Your task to perform on an android device: Is it going to rain this weekend? Image 0: 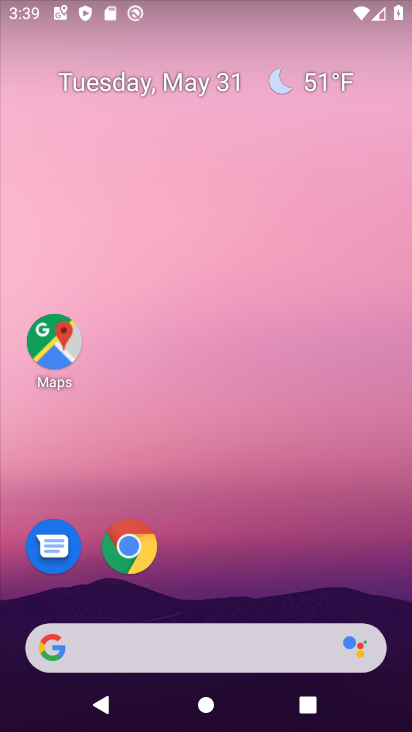
Step 0: drag from (212, 577) to (265, 222)
Your task to perform on an android device: Is it going to rain this weekend? Image 1: 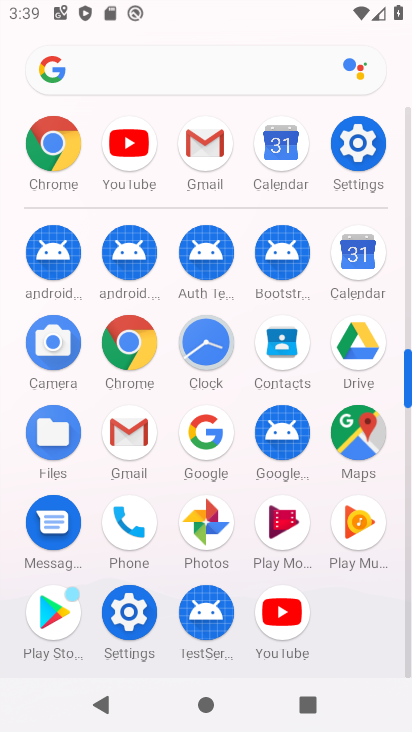
Step 1: click (197, 438)
Your task to perform on an android device: Is it going to rain this weekend? Image 2: 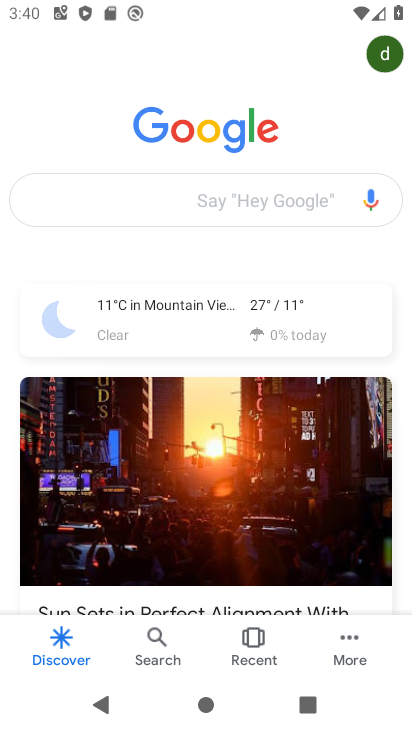
Step 2: click (193, 199)
Your task to perform on an android device: Is it going to rain this weekend? Image 3: 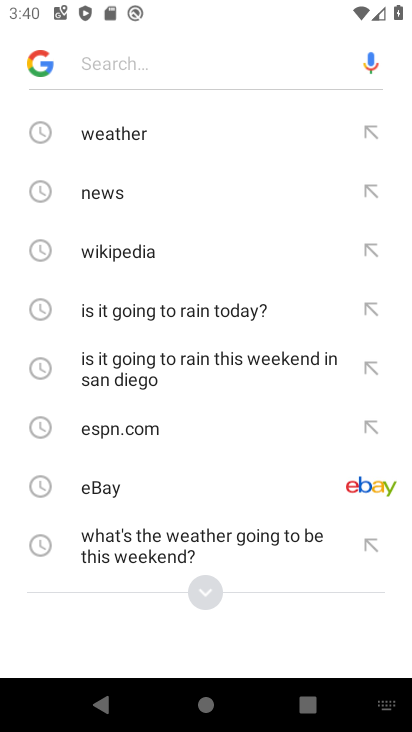
Step 3: click (118, 135)
Your task to perform on an android device: Is it going to rain this weekend? Image 4: 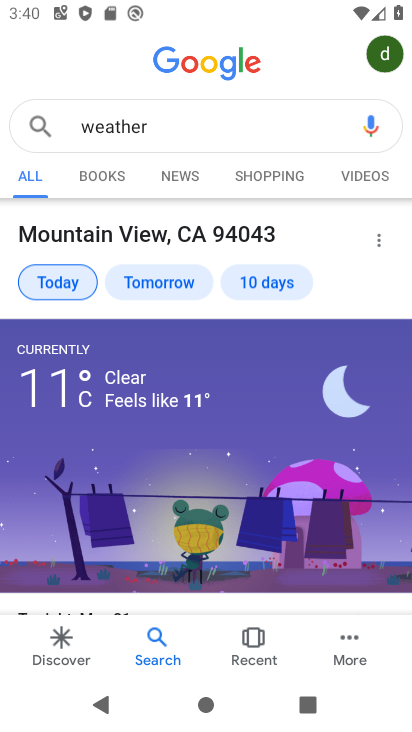
Step 4: click (258, 297)
Your task to perform on an android device: Is it going to rain this weekend? Image 5: 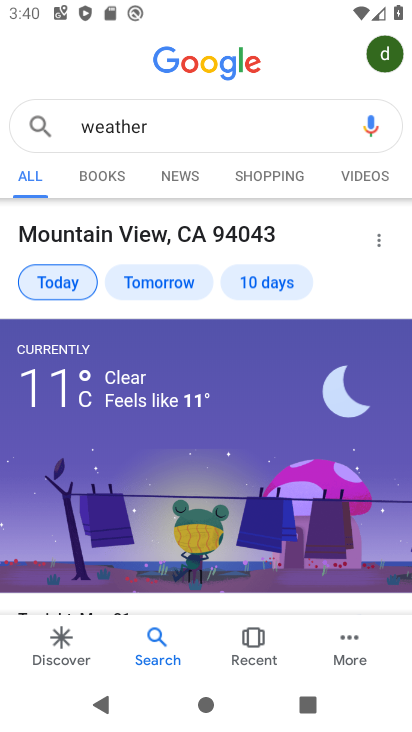
Step 5: click (279, 269)
Your task to perform on an android device: Is it going to rain this weekend? Image 6: 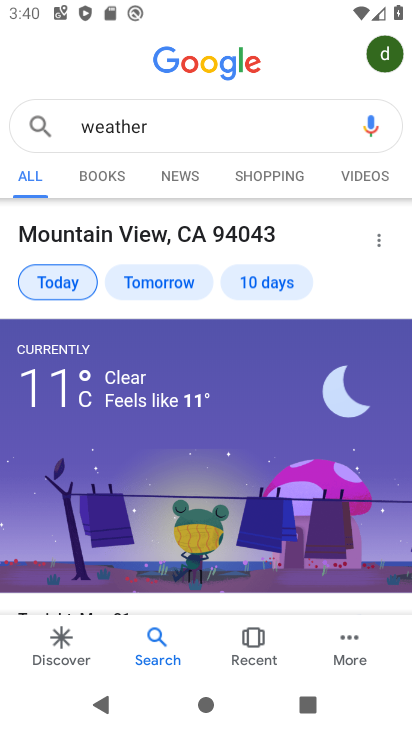
Step 6: click (258, 285)
Your task to perform on an android device: Is it going to rain this weekend? Image 7: 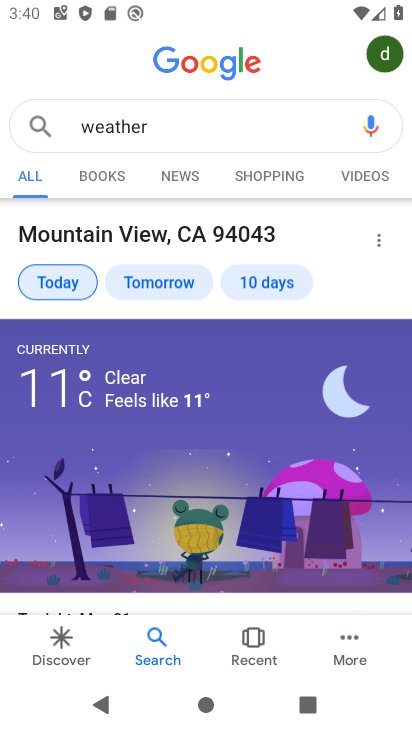
Step 7: click (258, 285)
Your task to perform on an android device: Is it going to rain this weekend? Image 8: 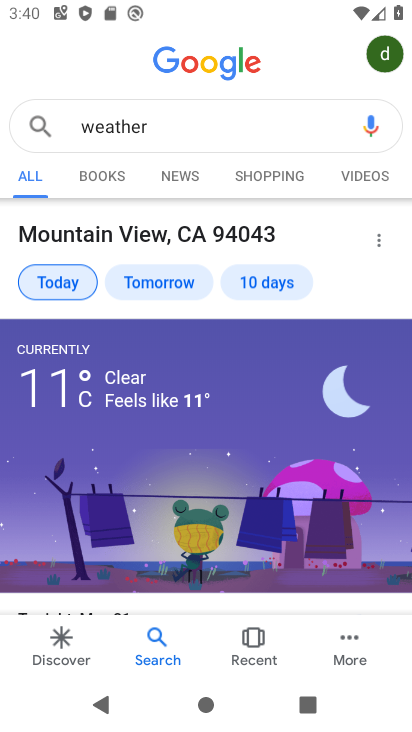
Step 8: click (258, 285)
Your task to perform on an android device: Is it going to rain this weekend? Image 9: 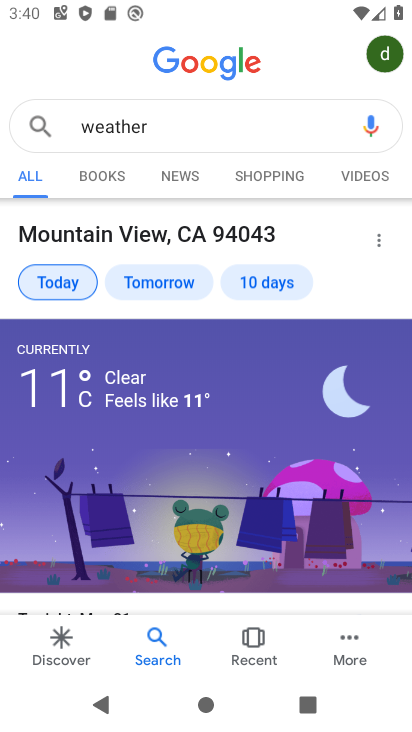
Step 9: click (258, 285)
Your task to perform on an android device: Is it going to rain this weekend? Image 10: 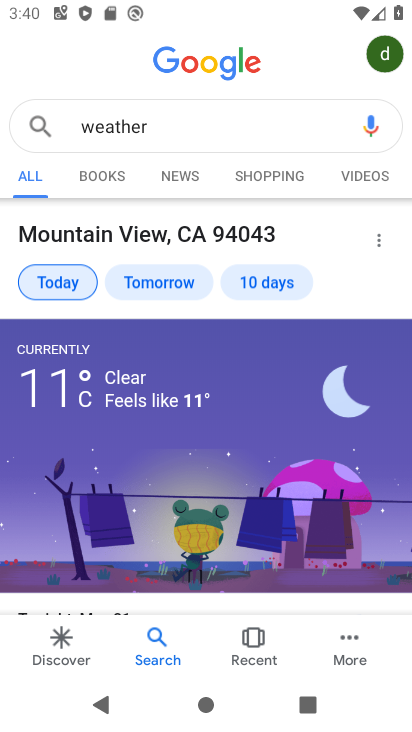
Step 10: click (258, 285)
Your task to perform on an android device: Is it going to rain this weekend? Image 11: 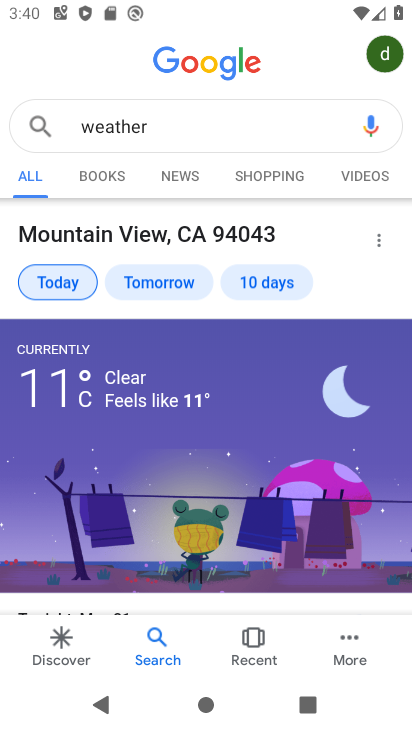
Step 11: click (258, 285)
Your task to perform on an android device: Is it going to rain this weekend? Image 12: 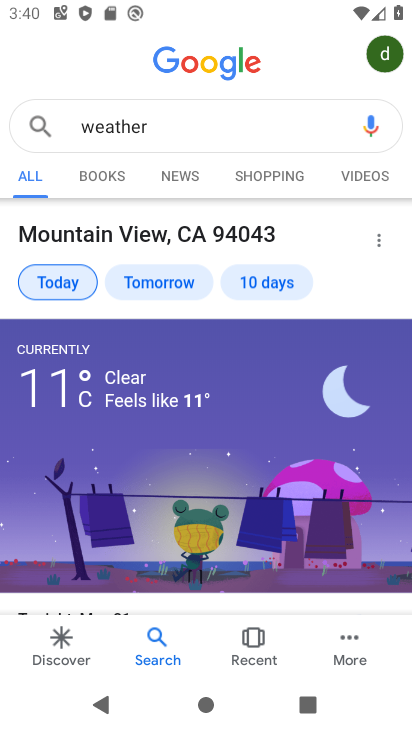
Step 12: click (258, 285)
Your task to perform on an android device: Is it going to rain this weekend? Image 13: 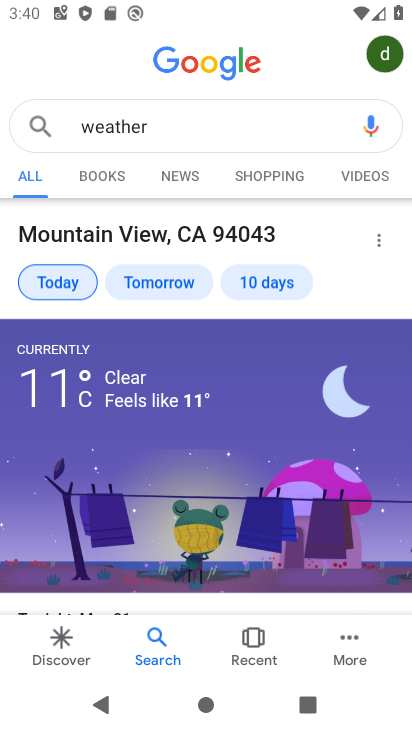
Step 13: click (258, 285)
Your task to perform on an android device: Is it going to rain this weekend? Image 14: 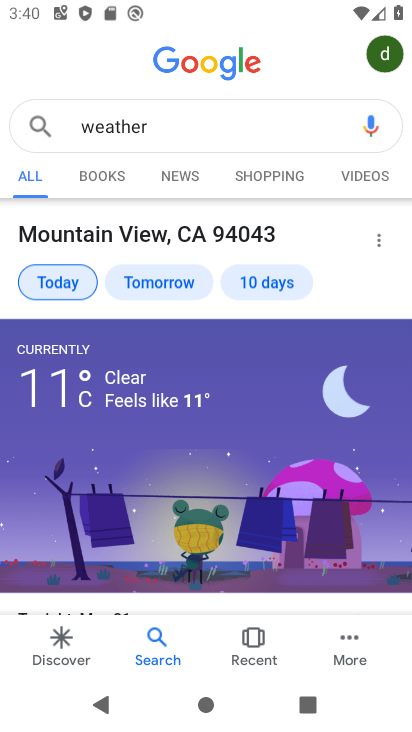
Step 14: click (258, 285)
Your task to perform on an android device: Is it going to rain this weekend? Image 15: 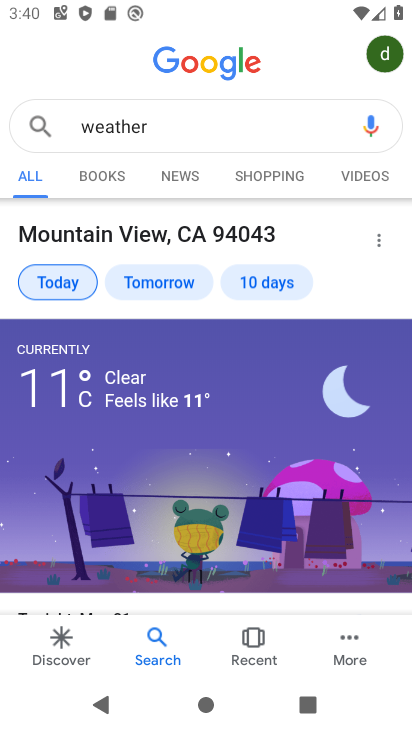
Step 15: click (258, 285)
Your task to perform on an android device: Is it going to rain this weekend? Image 16: 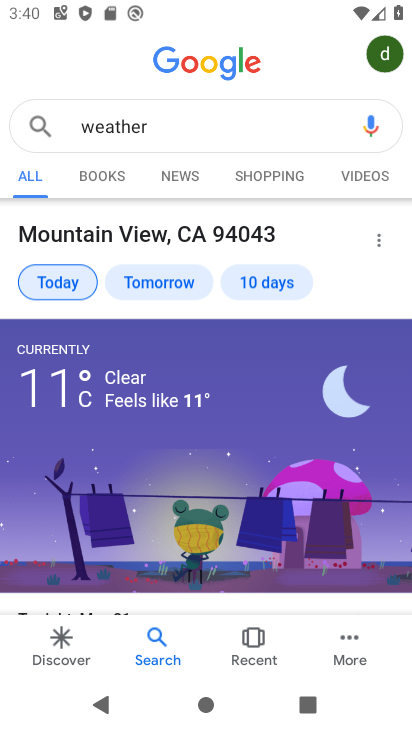
Step 16: click (258, 285)
Your task to perform on an android device: Is it going to rain this weekend? Image 17: 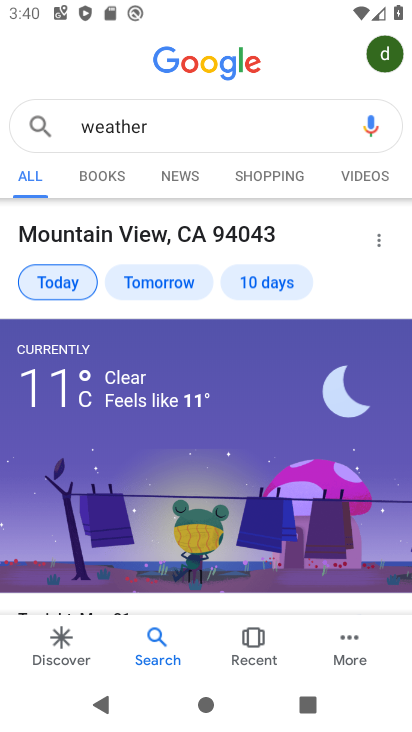
Step 17: click (258, 285)
Your task to perform on an android device: Is it going to rain this weekend? Image 18: 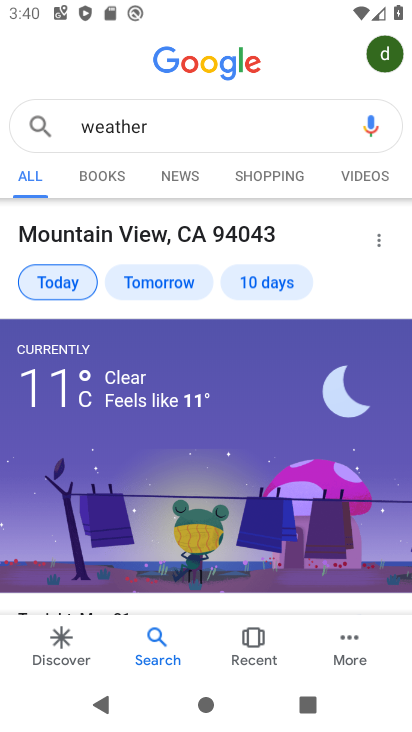
Step 18: click (258, 285)
Your task to perform on an android device: Is it going to rain this weekend? Image 19: 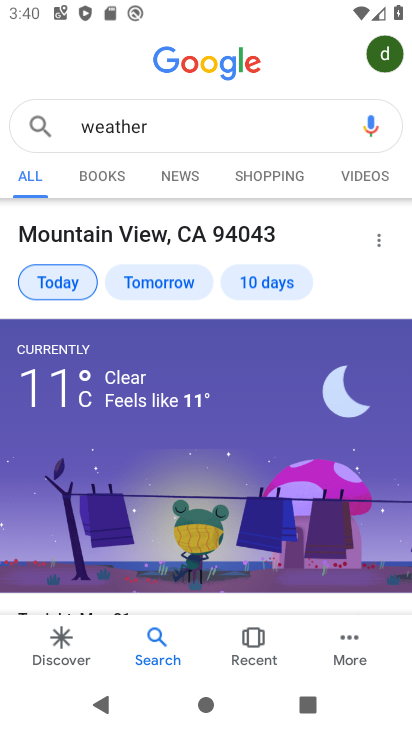
Step 19: click (258, 285)
Your task to perform on an android device: Is it going to rain this weekend? Image 20: 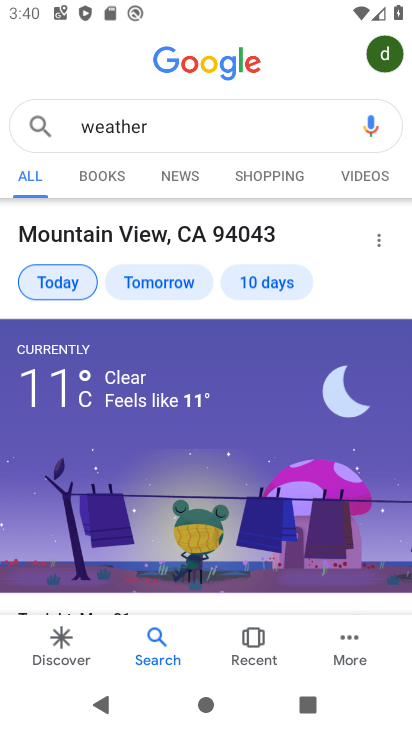
Step 20: click (258, 285)
Your task to perform on an android device: Is it going to rain this weekend? Image 21: 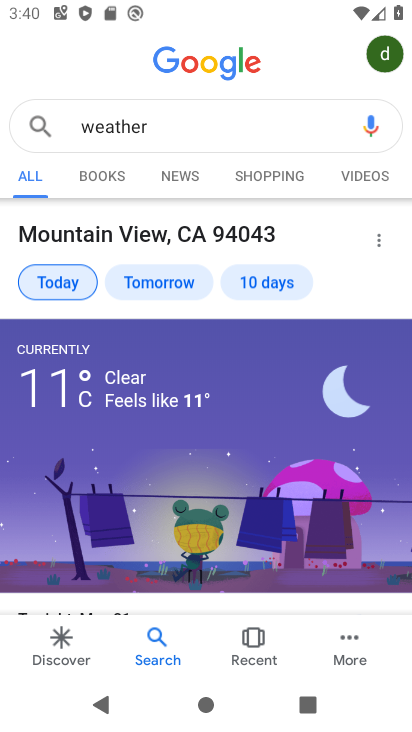
Step 21: task complete